Your task to perform on an android device: Go to sound settings Image 0: 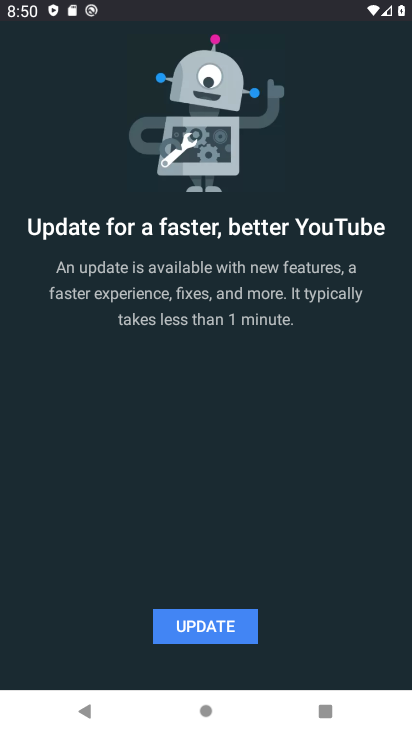
Step 0: press home button
Your task to perform on an android device: Go to sound settings Image 1: 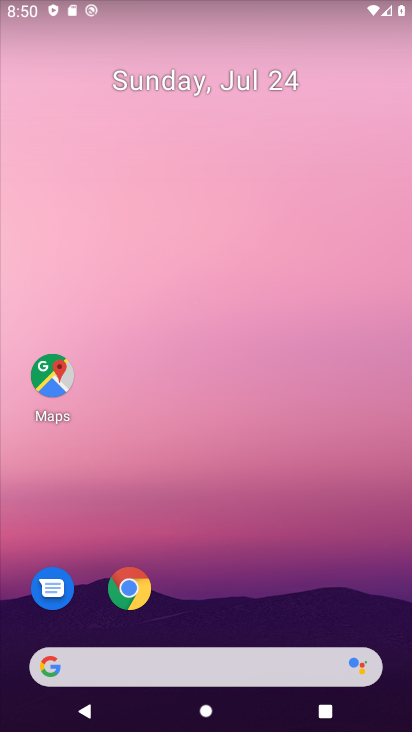
Step 1: drag from (128, 660) to (159, 120)
Your task to perform on an android device: Go to sound settings Image 2: 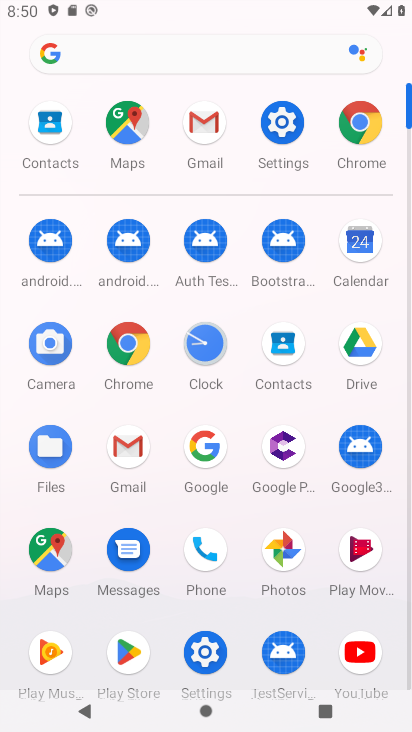
Step 2: click (294, 121)
Your task to perform on an android device: Go to sound settings Image 3: 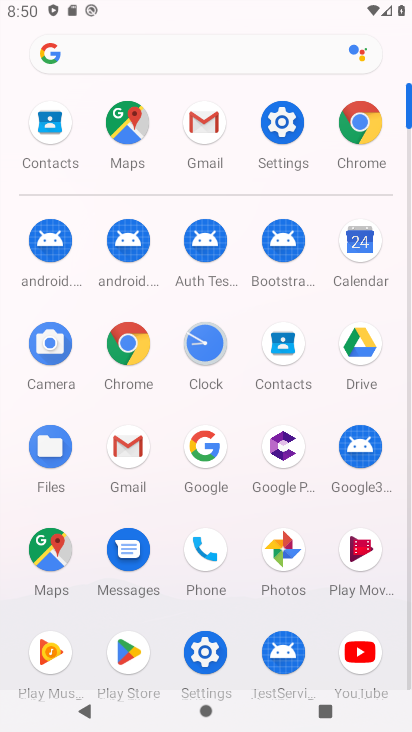
Step 3: click (294, 121)
Your task to perform on an android device: Go to sound settings Image 4: 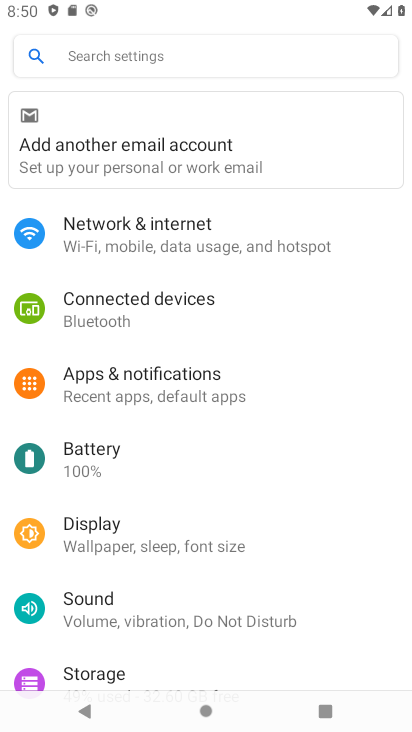
Step 4: click (126, 617)
Your task to perform on an android device: Go to sound settings Image 5: 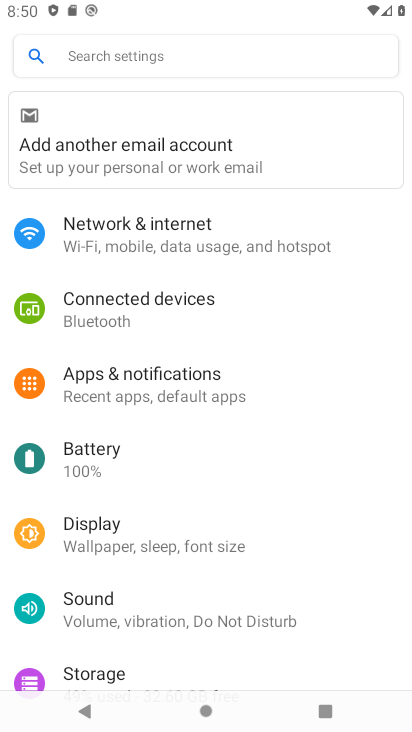
Step 5: click (126, 617)
Your task to perform on an android device: Go to sound settings Image 6: 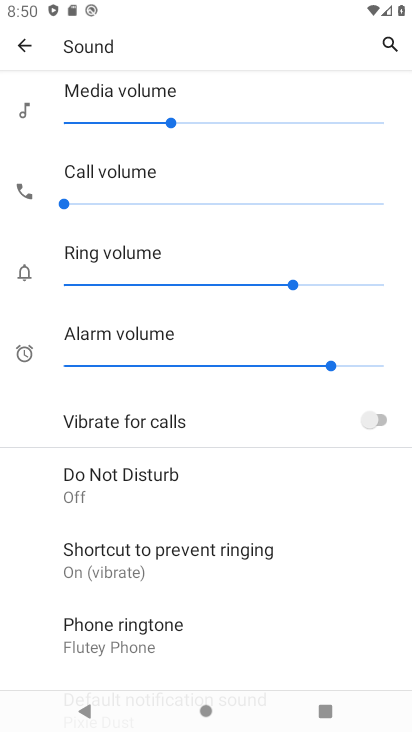
Step 6: task complete